Your task to perform on an android device: turn on bluetooth scan Image 0: 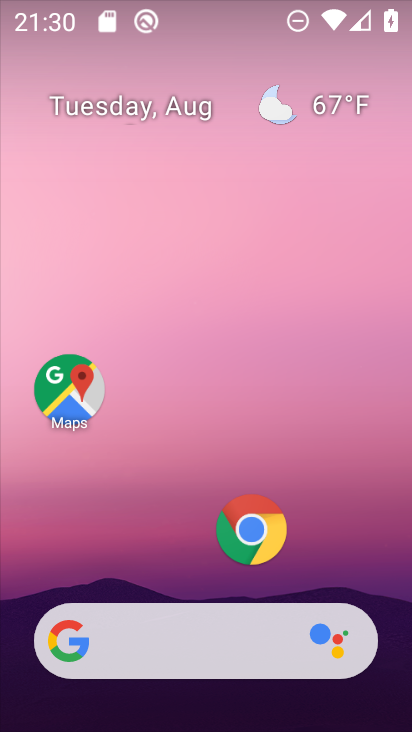
Step 0: drag from (188, 547) to (174, 124)
Your task to perform on an android device: turn on bluetooth scan Image 1: 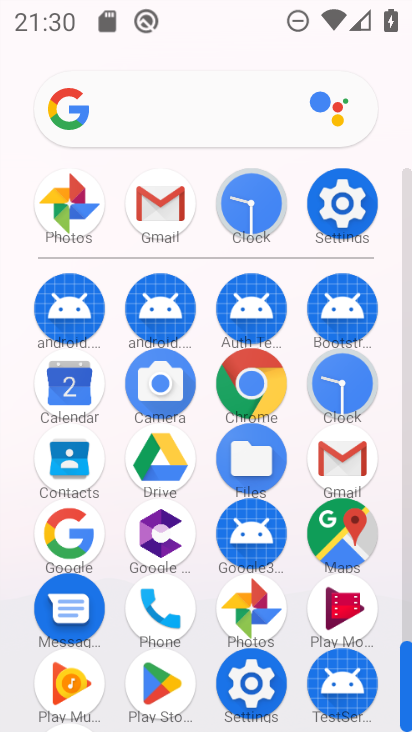
Step 1: click (340, 190)
Your task to perform on an android device: turn on bluetooth scan Image 2: 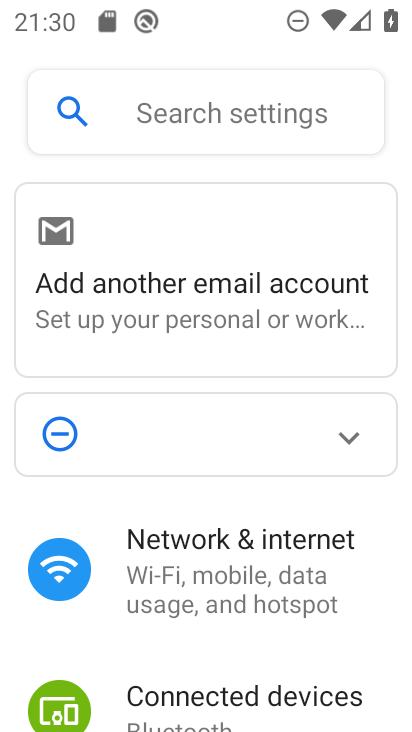
Step 2: drag from (197, 647) to (274, 247)
Your task to perform on an android device: turn on bluetooth scan Image 3: 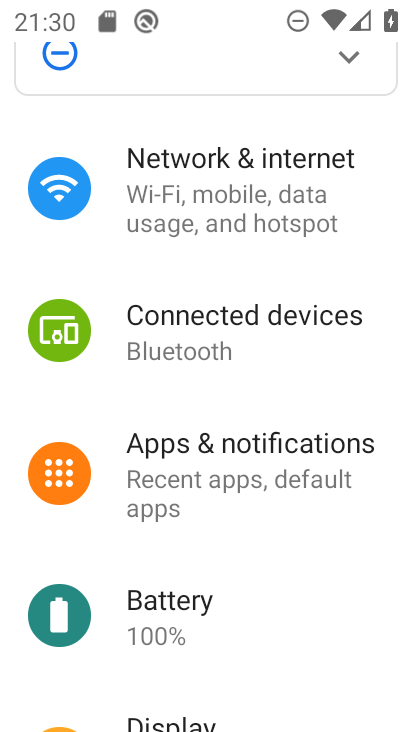
Step 3: drag from (254, 565) to (306, 210)
Your task to perform on an android device: turn on bluetooth scan Image 4: 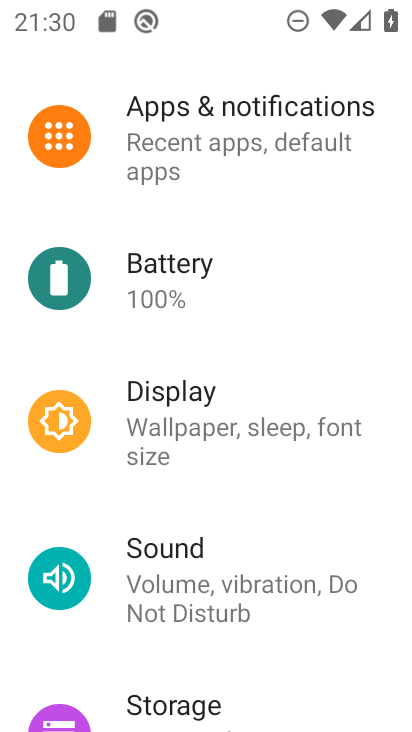
Step 4: drag from (245, 215) to (279, 596)
Your task to perform on an android device: turn on bluetooth scan Image 5: 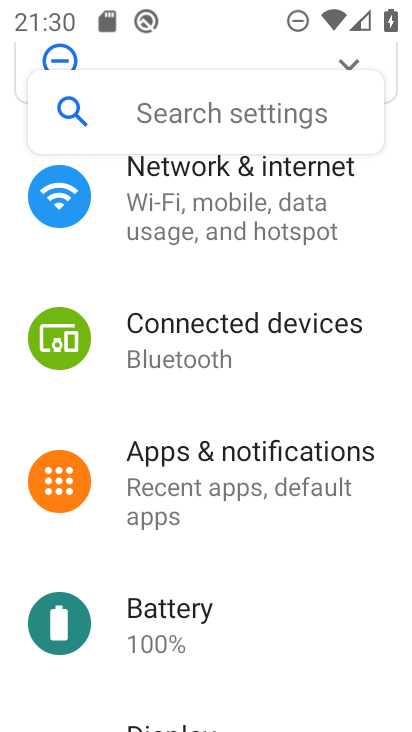
Step 5: drag from (243, 547) to (365, 11)
Your task to perform on an android device: turn on bluetooth scan Image 6: 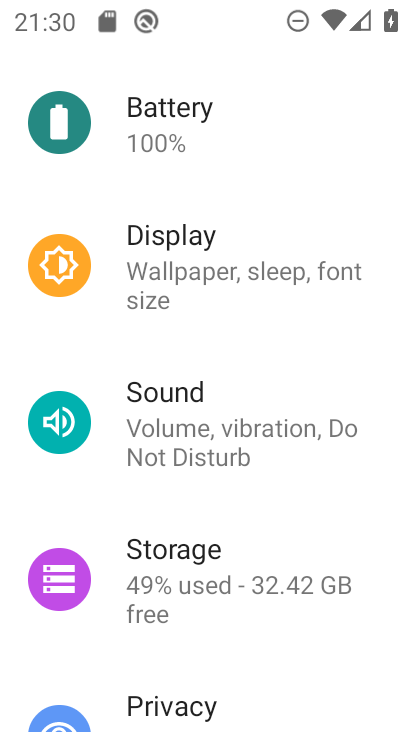
Step 6: drag from (200, 514) to (237, 103)
Your task to perform on an android device: turn on bluetooth scan Image 7: 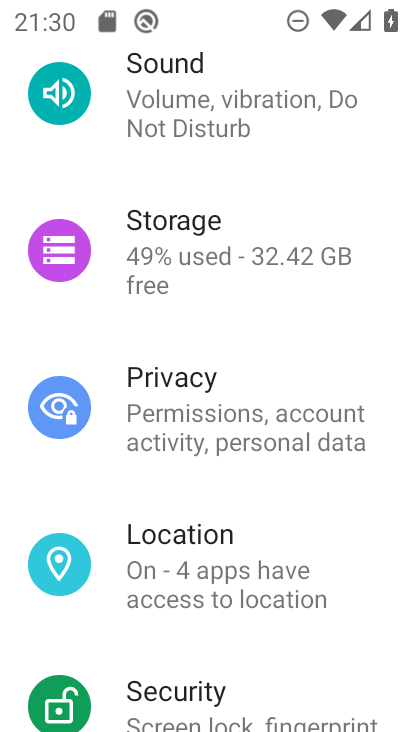
Step 7: drag from (212, 644) to (332, 278)
Your task to perform on an android device: turn on bluetooth scan Image 8: 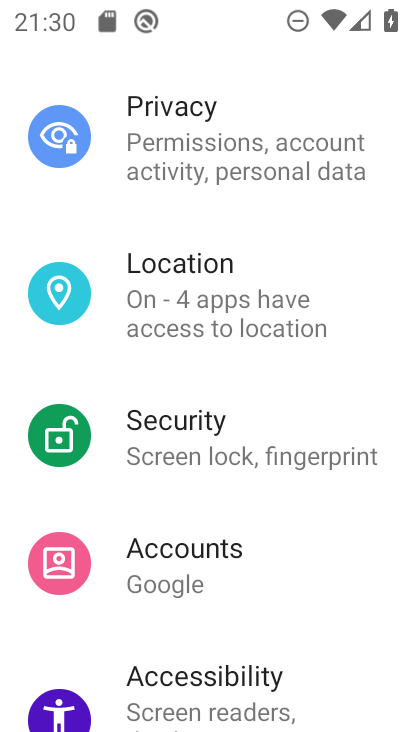
Step 8: drag from (226, 645) to (309, 252)
Your task to perform on an android device: turn on bluetooth scan Image 9: 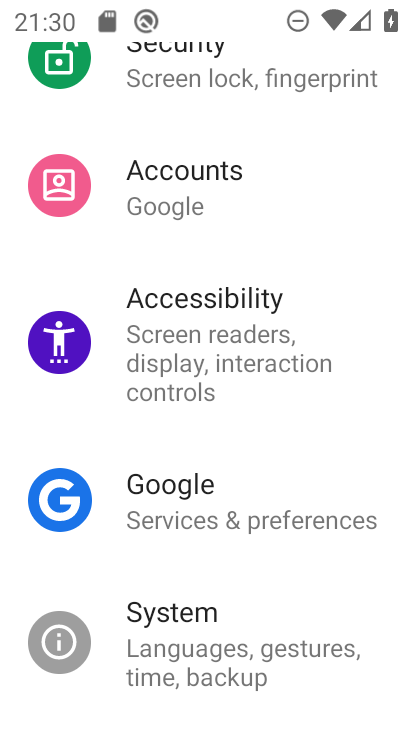
Step 9: click (183, 636)
Your task to perform on an android device: turn on bluetooth scan Image 10: 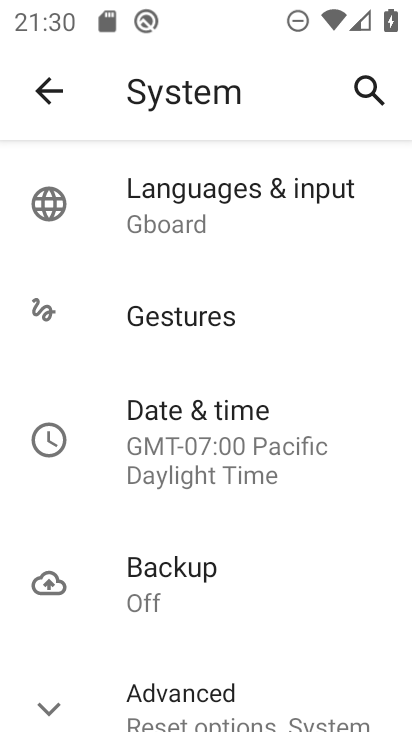
Step 10: click (40, 95)
Your task to perform on an android device: turn on bluetooth scan Image 11: 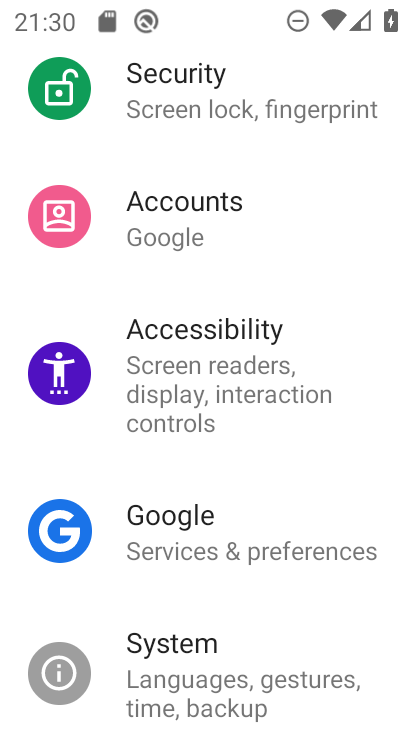
Step 11: drag from (208, 333) to (262, 687)
Your task to perform on an android device: turn on bluetooth scan Image 12: 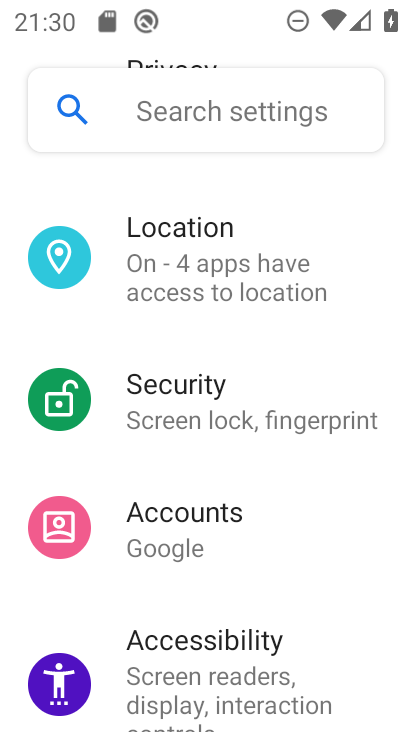
Step 12: click (174, 252)
Your task to perform on an android device: turn on bluetooth scan Image 13: 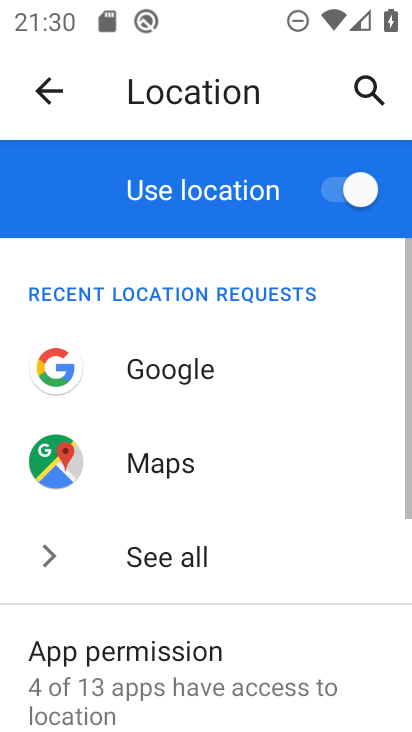
Step 13: task complete